Your task to perform on an android device: add a contact Image 0: 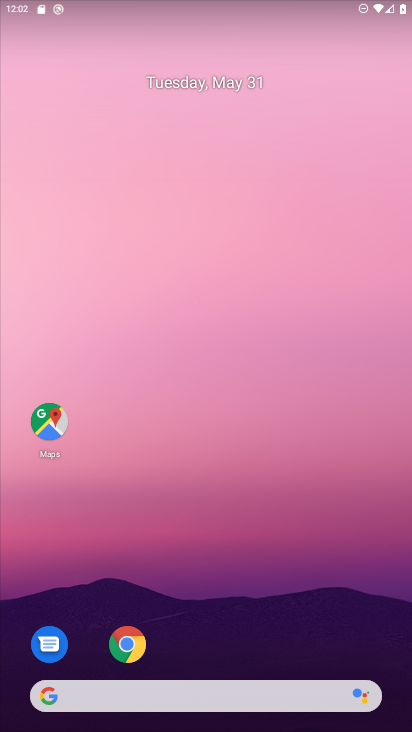
Step 0: click (223, 165)
Your task to perform on an android device: add a contact Image 1: 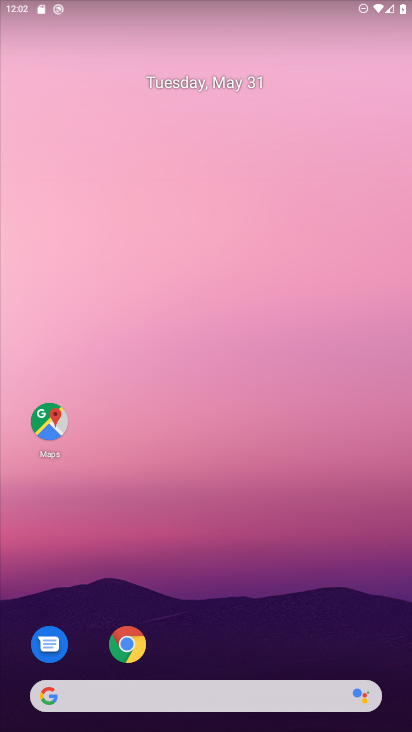
Step 1: drag from (216, 668) to (287, 127)
Your task to perform on an android device: add a contact Image 2: 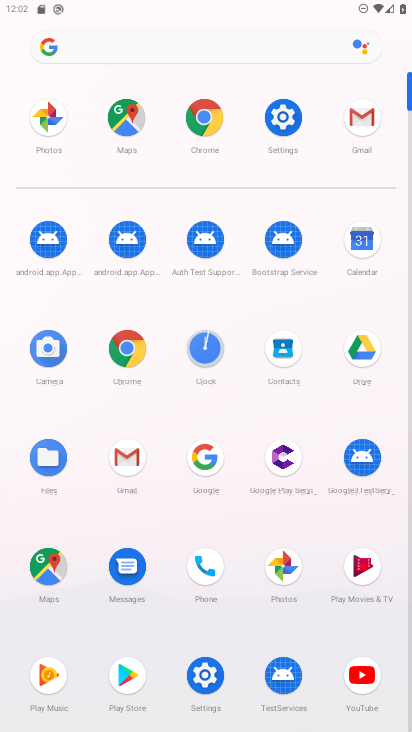
Step 2: click (287, 340)
Your task to perform on an android device: add a contact Image 3: 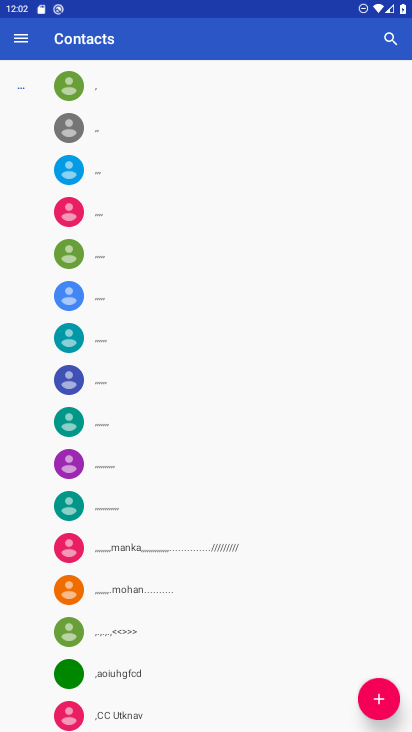
Step 3: drag from (168, 597) to (221, 275)
Your task to perform on an android device: add a contact Image 4: 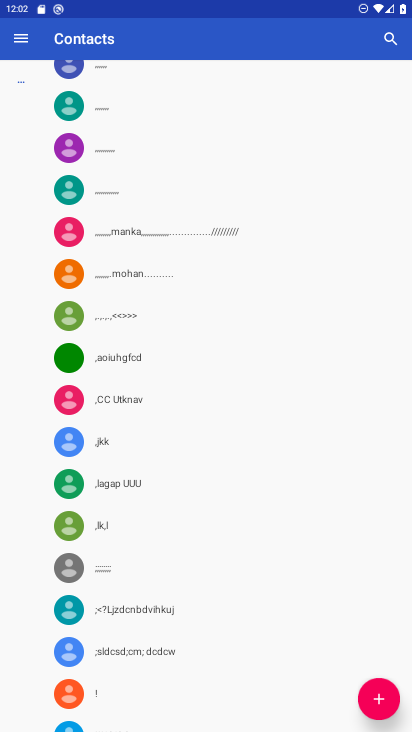
Step 4: drag from (194, 506) to (243, 282)
Your task to perform on an android device: add a contact Image 5: 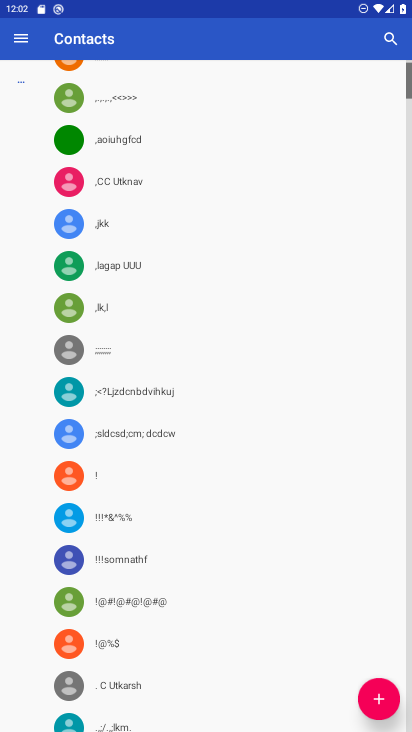
Step 5: click (388, 717)
Your task to perform on an android device: add a contact Image 6: 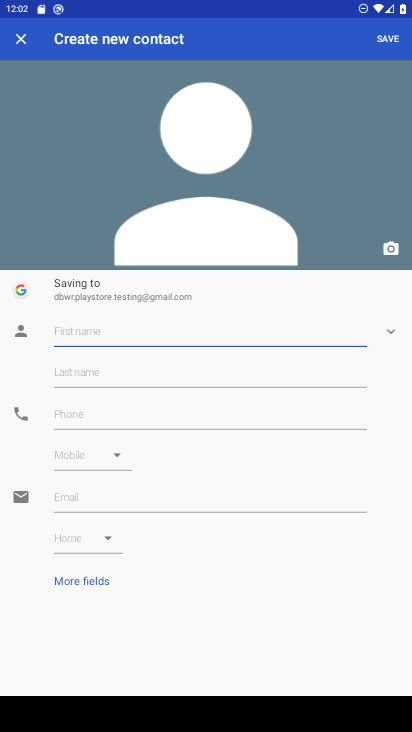
Step 6: click (66, 337)
Your task to perform on an android device: add a contact Image 7: 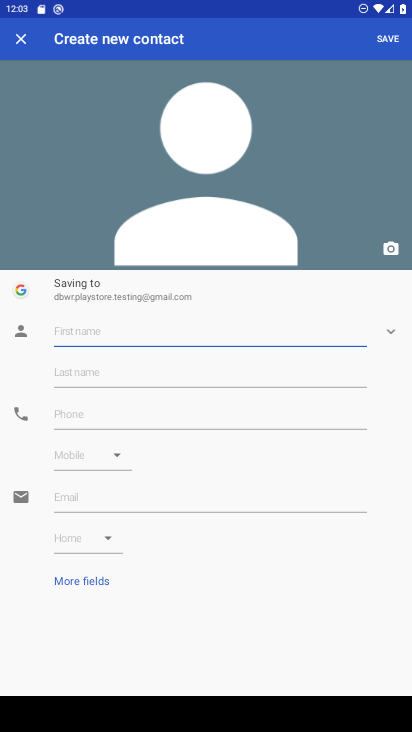
Step 7: type "add a contact"
Your task to perform on an android device: add a contact Image 8: 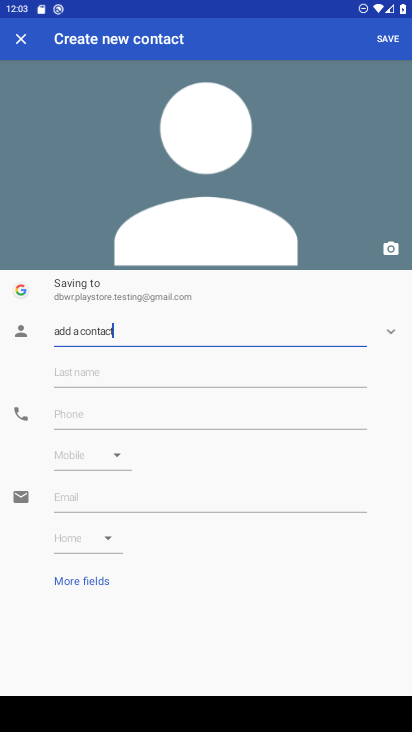
Step 8: type ""
Your task to perform on an android device: add a contact Image 9: 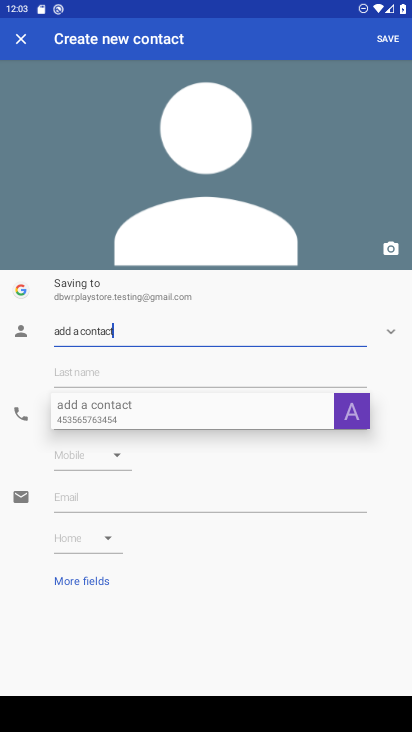
Step 9: click (379, 47)
Your task to perform on an android device: add a contact Image 10: 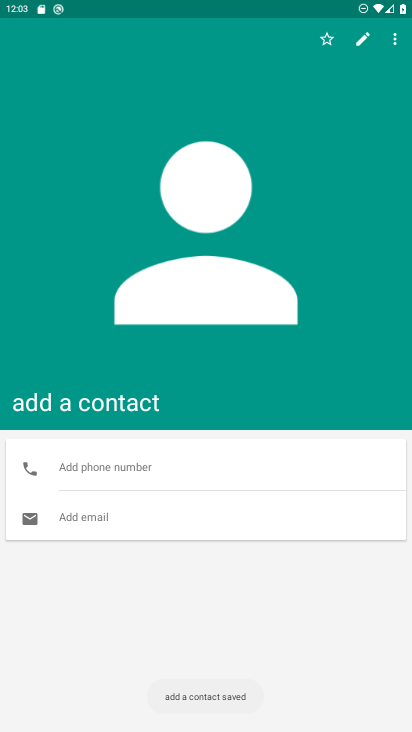
Step 10: task complete